Your task to perform on an android device: toggle location history Image 0: 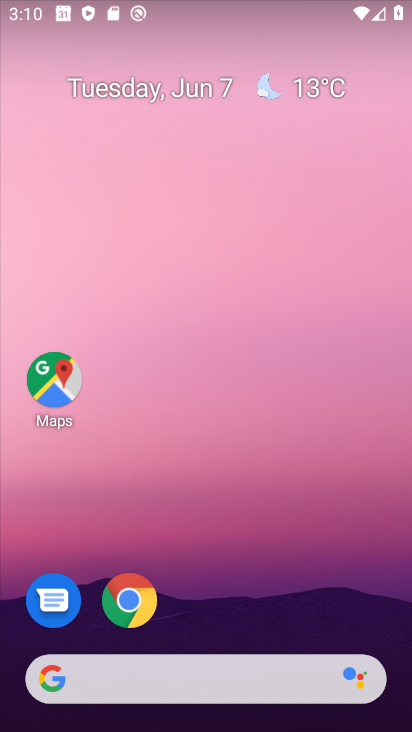
Step 0: drag from (202, 610) to (158, 112)
Your task to perform on an android device: toggle location history Image 1: 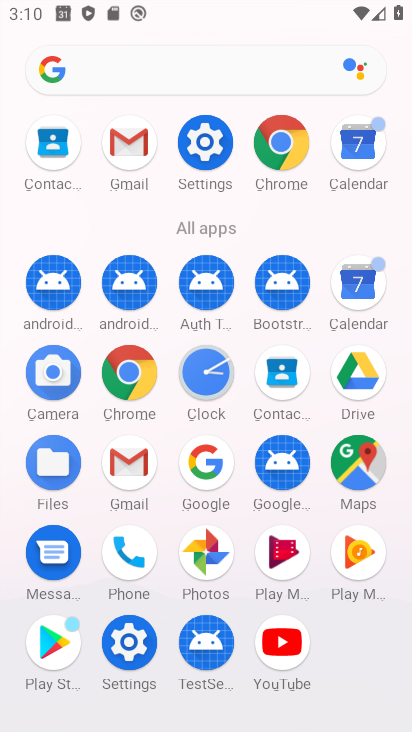
Step 1: click (205, 139)
Your task to perform on an android device: toggle location history Image 2: 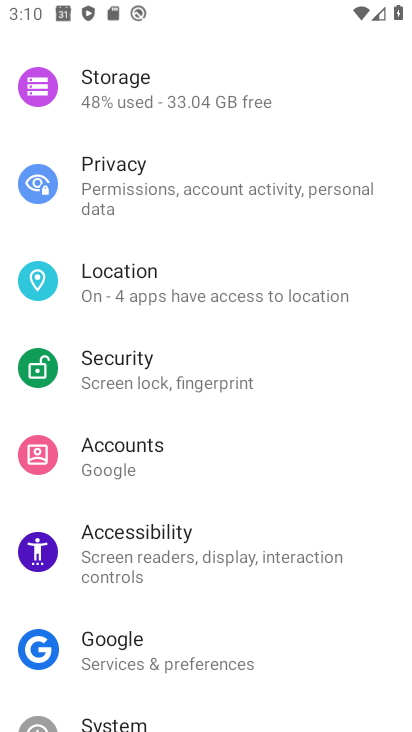
Step 2: click (159, 277)
Your task to perform on an android device: toggle location history Image 3: 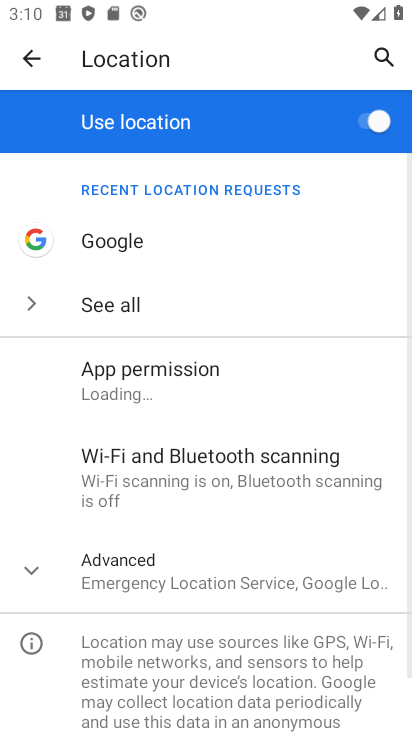
Step 3: click (142, 575)
Your task to perform on an android device: toggle location history Image 4: 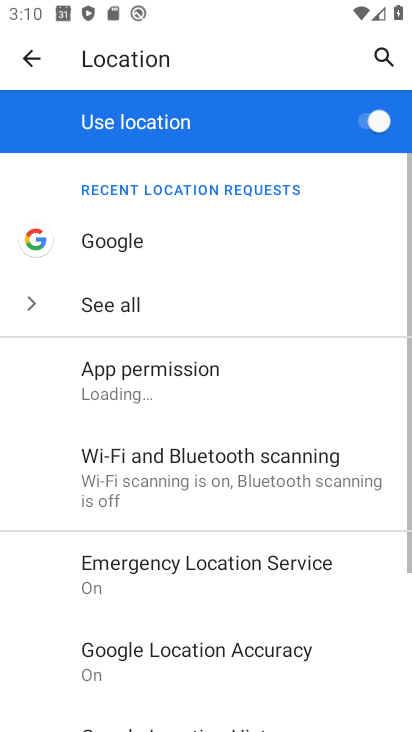
Step 4: drag from (201, 603) to (161, 232)
Your task to perform on an android device: toggle location history Image 5: 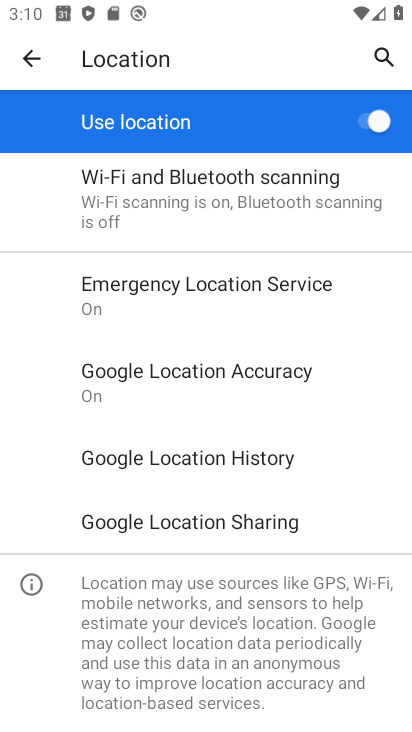
Step 5: click (197, 446)
Your task to perform on an android device: toggle location history Image 6: 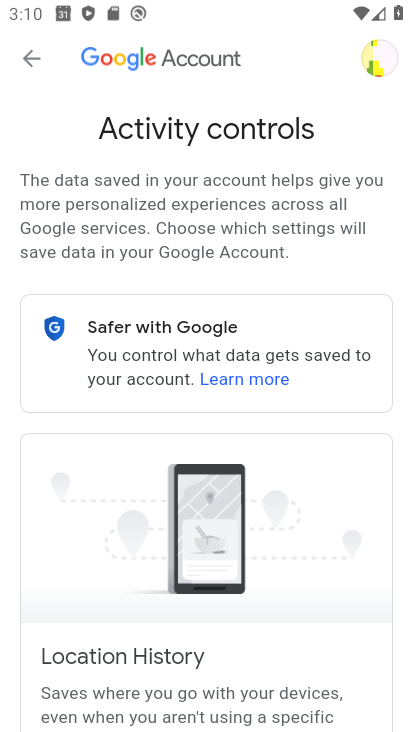
Step 6: drag from (305, 595) to (227, 167)
Your task to perform on an android device: toggle location history Image 7: 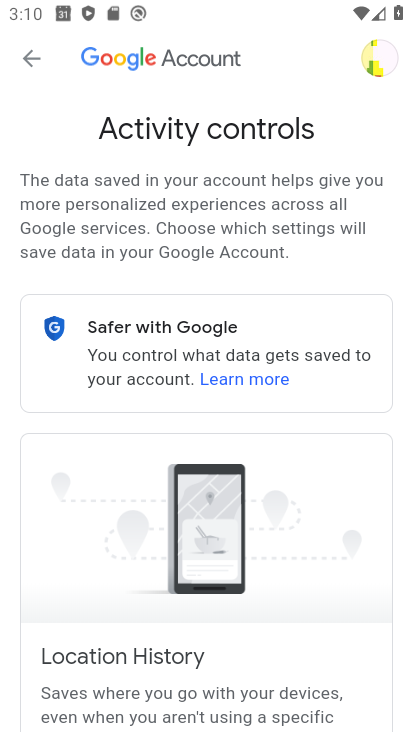
Step 7: drag from (307, 597) to (223, 138)
Your task to perform on an android device: toggle location history Image 8: 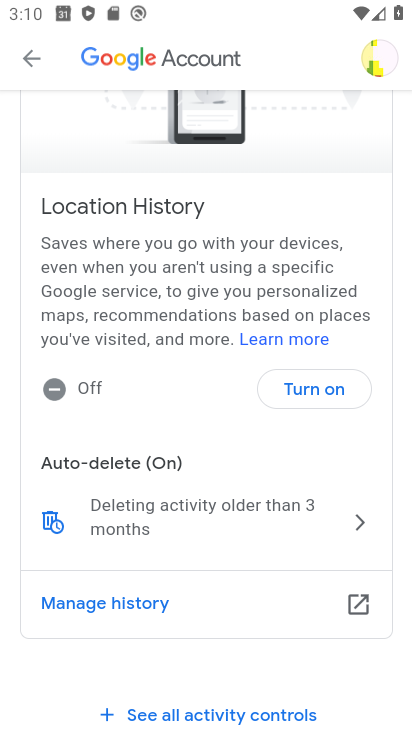
Step 8: click (316, 395)
Your task to perform on an android device: toggle location history Image 9: 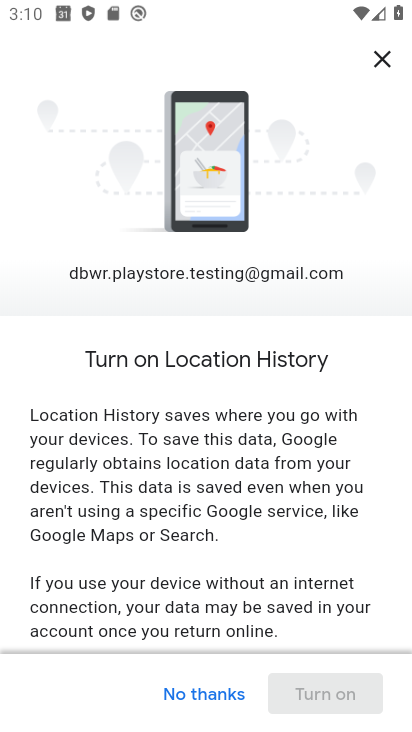
Step 9: drag from (292, 624) to (255, 136)
Your task to perform on an android device: toggle location history Image 10: 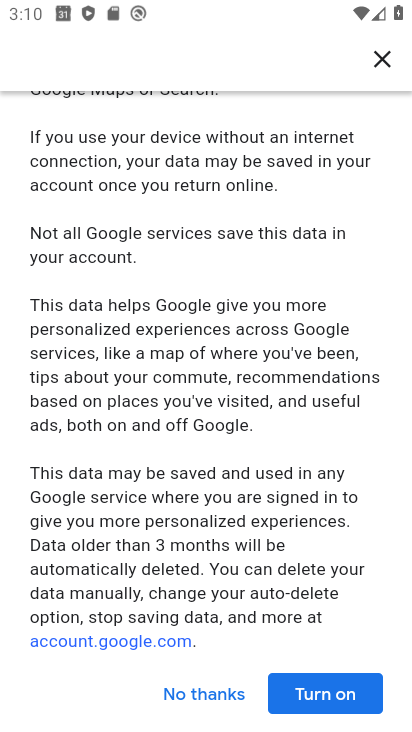
Step 10: drag from (320, 633) to (303, 408)
Your task to perform on an android device: toggle location history Image 11: 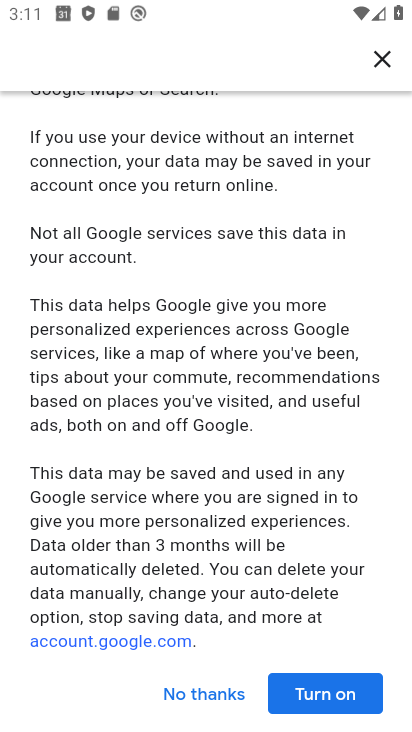
Step 11: click (314, 688)
Your task to perform on an android device: toggle location history Image 12: 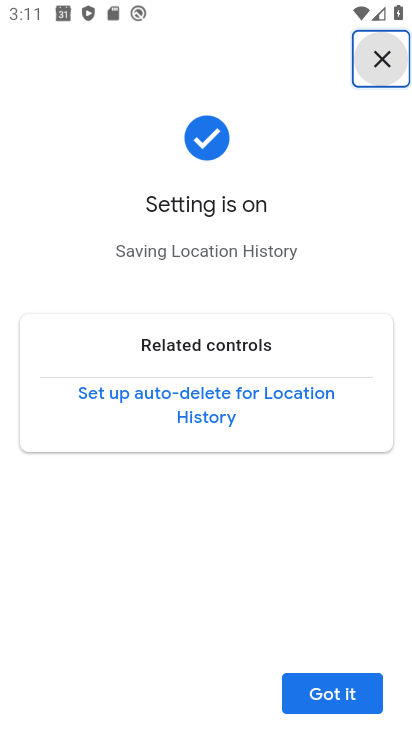
Step 12: task complete